Your task to perform on an android device: change your default location settings in chrome Image 0: 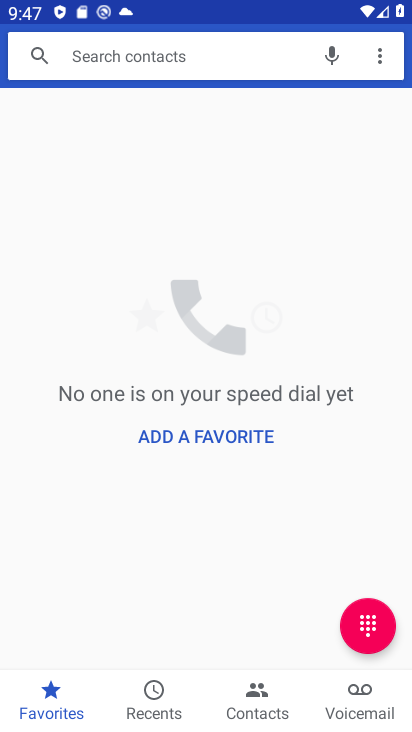
Step 0: press home button
Your task to perform on an android device: change your default location settings in chrome Image 1: 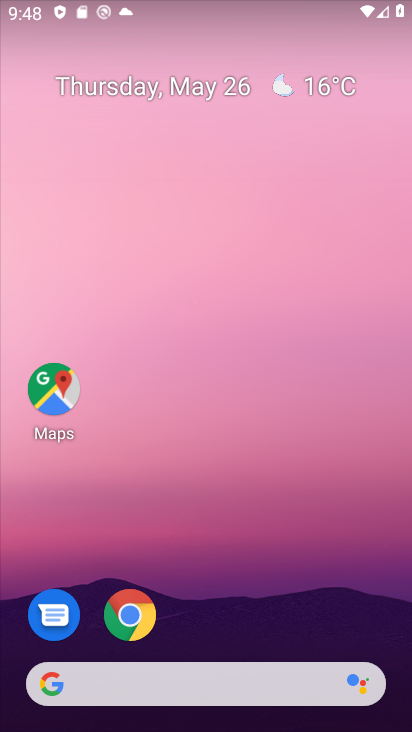
Step 1: drag from (281, 701) to (292, 95)
Your task to perform on an android device: change your default location settings in chrome Image 2: 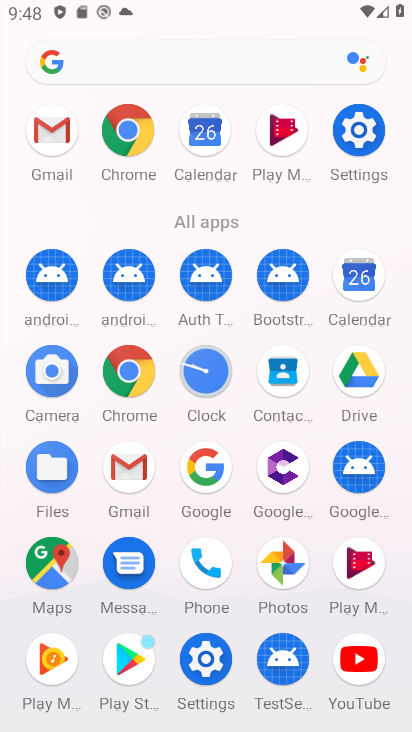
Step 2: click (133, 145)
Your task to perform on an android device: change your default location settings in chrome Image 3: 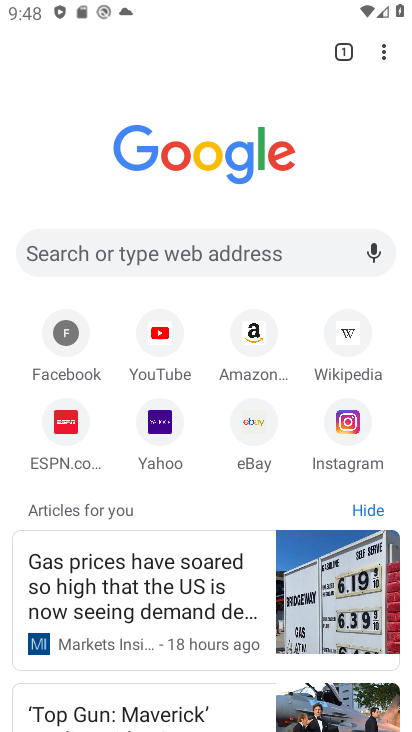
Step 3: click (380, 69)
Your task to perform on an android device: change your default location settings in chrome Image 4: 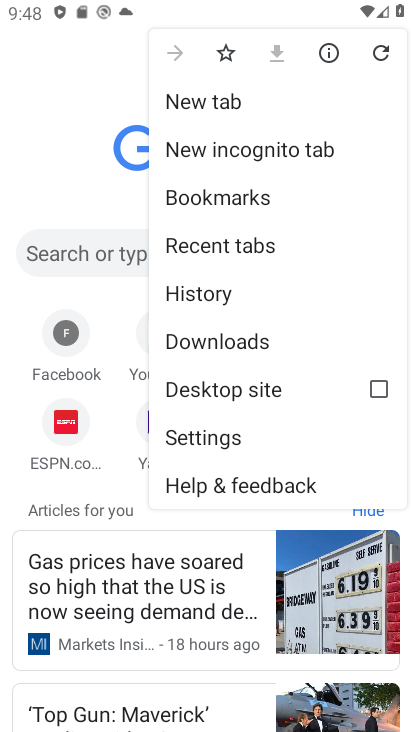
Step 4: click (221, 439)
Your task to perform on an android device: change your default location settings in chrome Image 5: 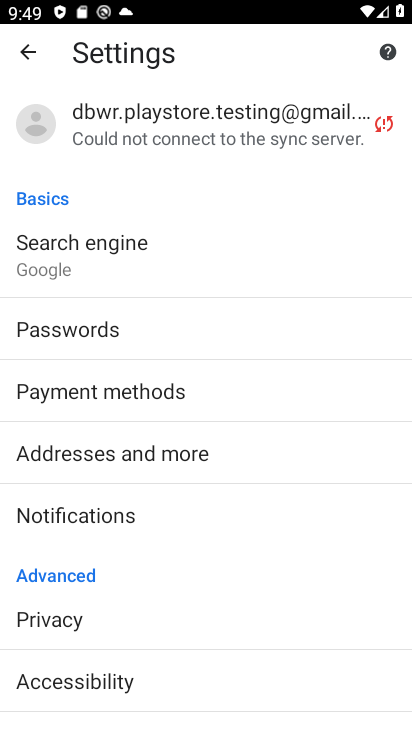
Step 5: drag from (211, 608) to (229, 310)
Your task to perform on an android device: change your default location settings in chrome Image 6: 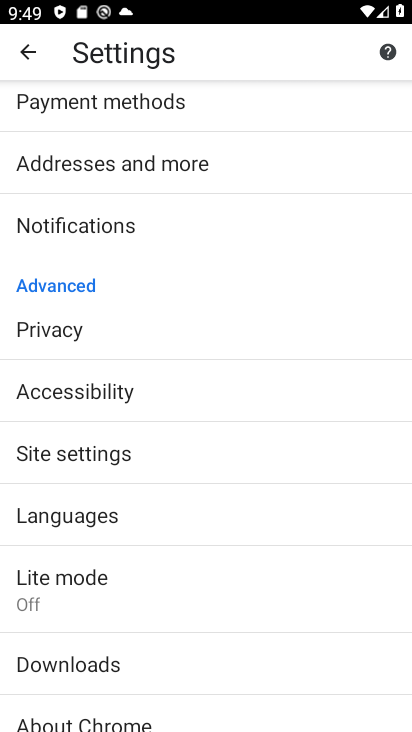
Step 6: click (115, 449)
Your task to perform on an android device: change your default location settings in chrome Image 7: 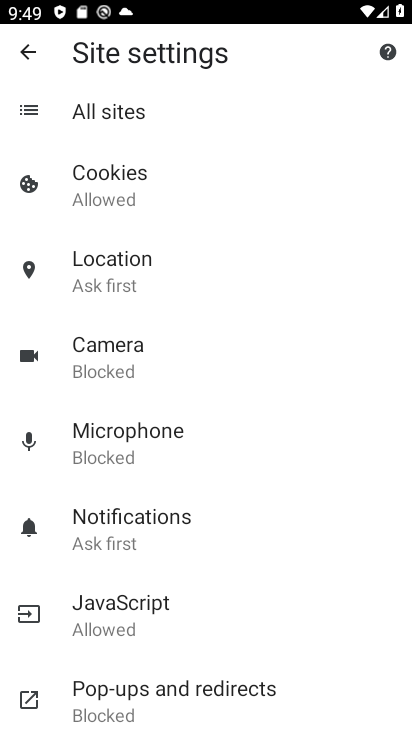
Step 7: click (120, 268)
Your task to perform on an android device: change your default location settings in chrome Image 8: 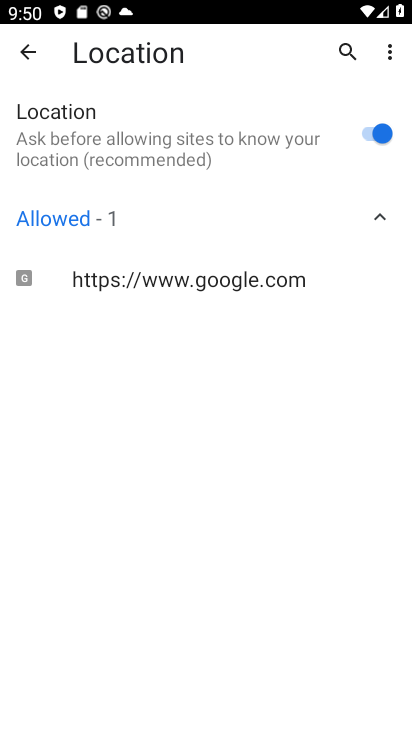
Step 8: task complete